Your task to perform on an android device: Search for sushi restaurants on Maps Image 0: 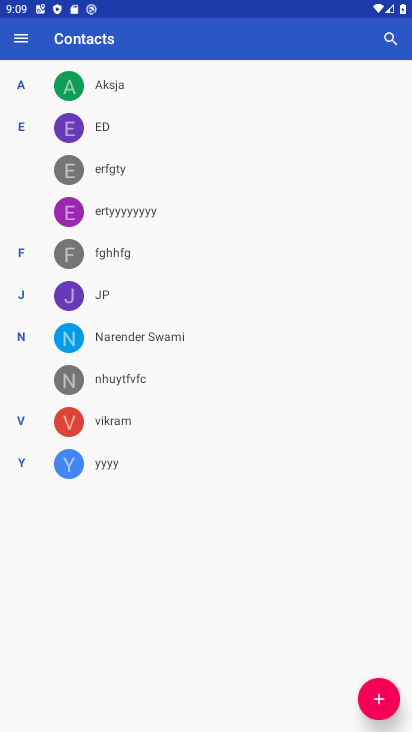
Step 0: press home button
Your task to perform on an android device: Search for sushi restaurants on Maps Image 1: 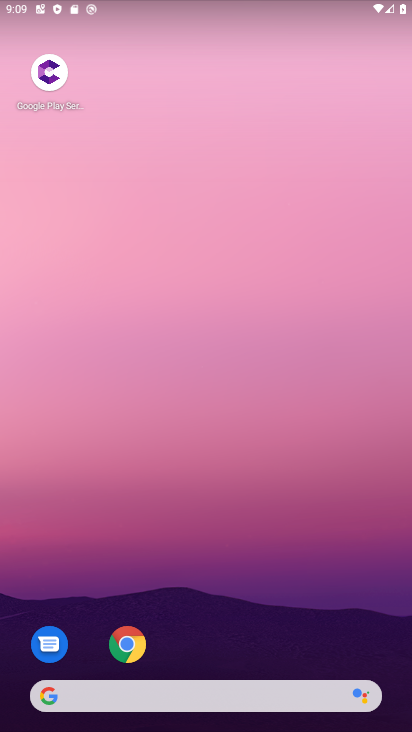
Step 1: drag from (226, 665) to (226, 172)
Your task to perform on an android device: Search for sushi restaurants on Maps Image 2: 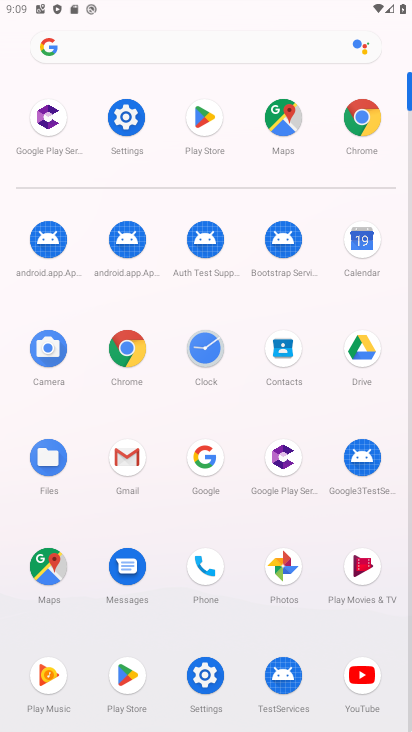
Step 2: click (45, 564)
Your task to perform on an android device: Search for sushi restaurants on Maps Image 3: 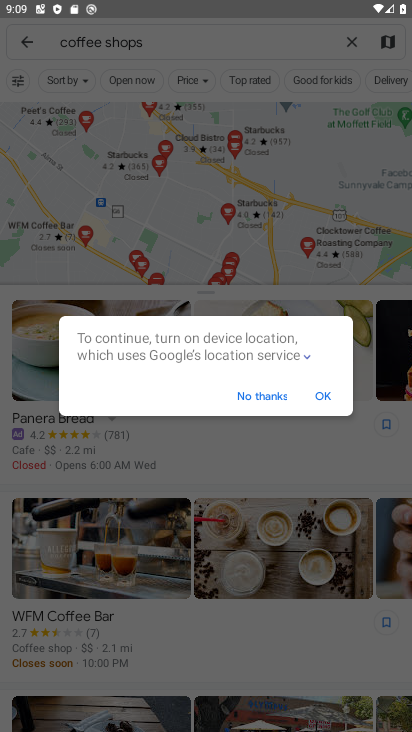
Step 3: click (267, 394)
Your task to perform on an android device: Search for sushi restaurants on Maps Image 4: 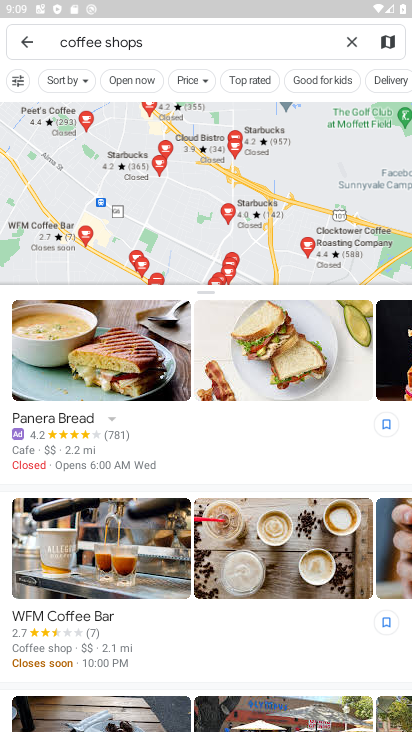
Step 4: click (351, 44)
Your task to perform on an android device: Search for sushi restaurants on Maps Image 5: 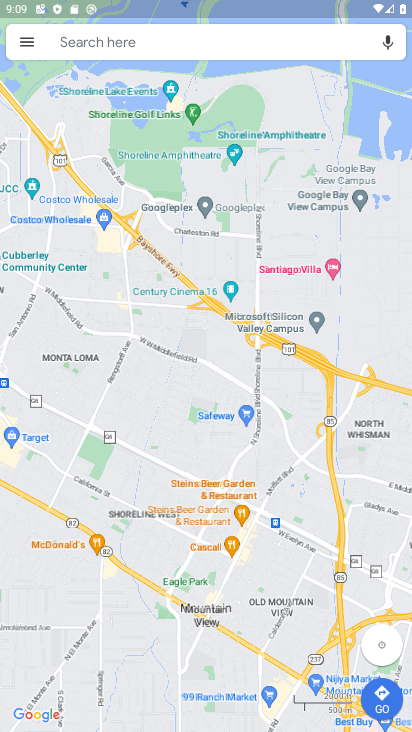
Step 5: click (246, 49)
Your task to perform on an android device: Search for sushi restaurants on Maps Image 6: 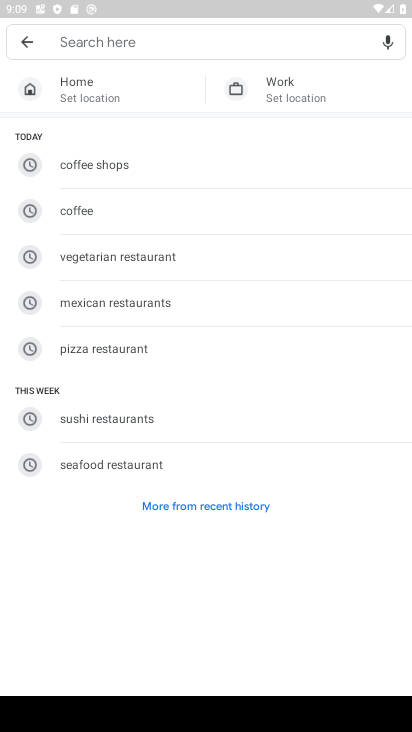
Step 6: type "sushi restaurants"
Your task to perform on an android device: Search for sushi restaurants on Maps Image 7: 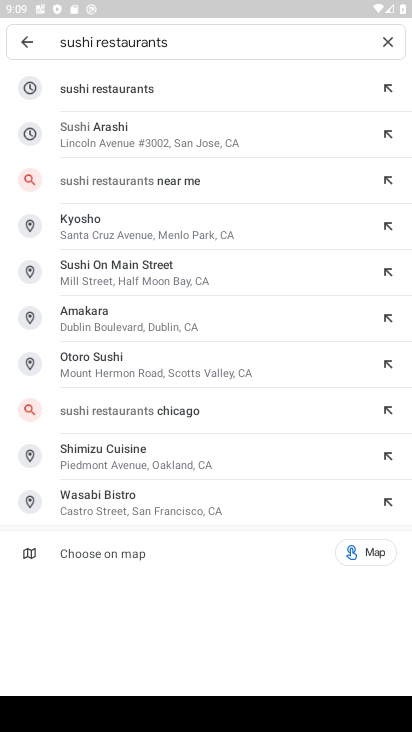
Step 7: click (123, 88)
Your task to perform on an android device: Search for sushi restaurants on Maps Image 8: 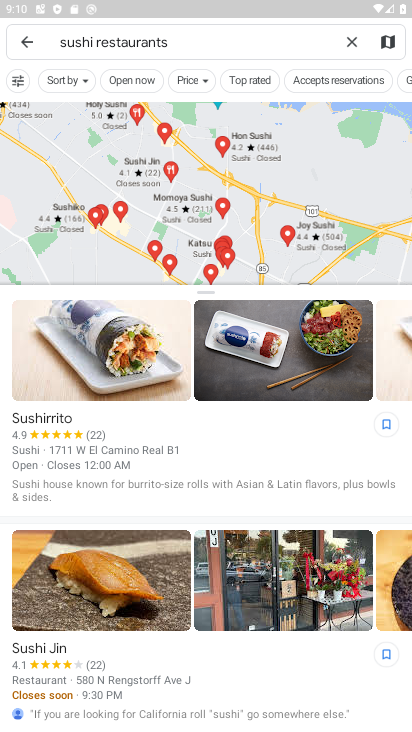
Step 8: task complete